Your task to perform on an android device: Go to Google maps Image 0: 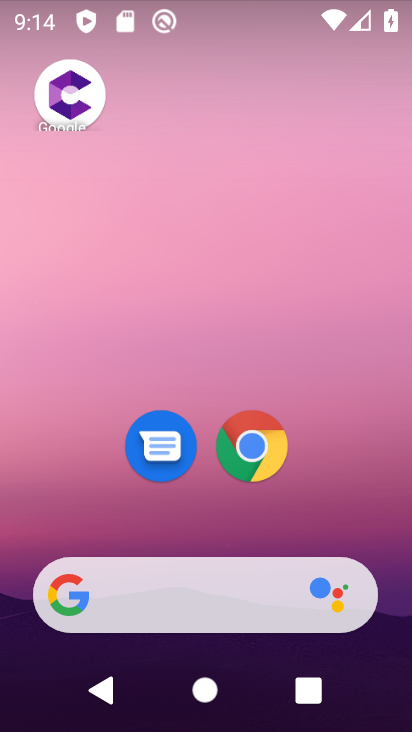
Step 0: drag from (203, 578) to (148, 64)
Your task to perform on an android device: Go to Google maps Image 1: 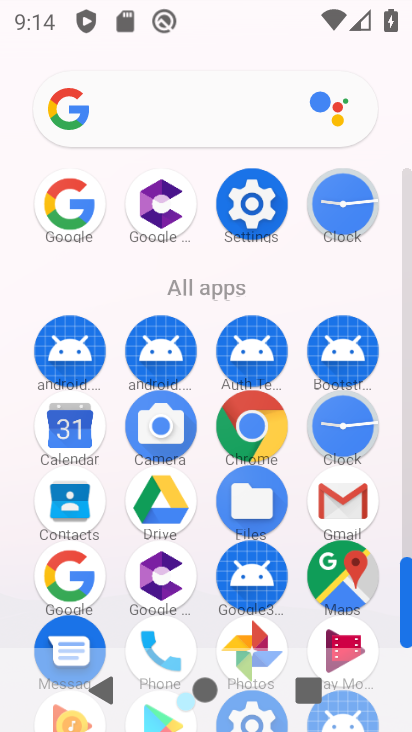
Step 1: click (350, 574)
Your task to perform on an android device: Go to Google maps Image 2: 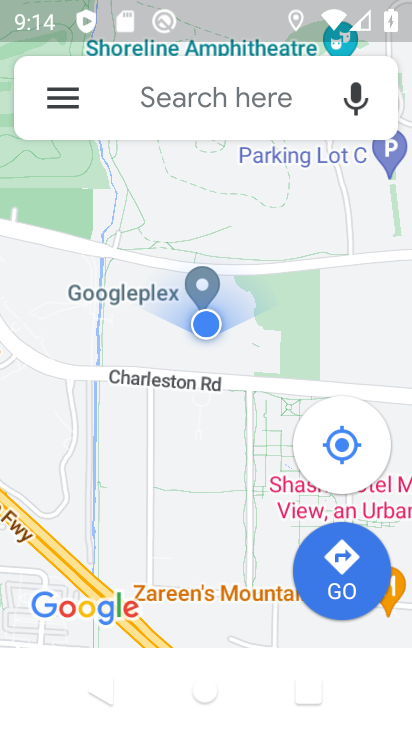
Step 2: task complete